Your task to perform on an android device: uninstall "Roku - Official Remote Control" Image 0: 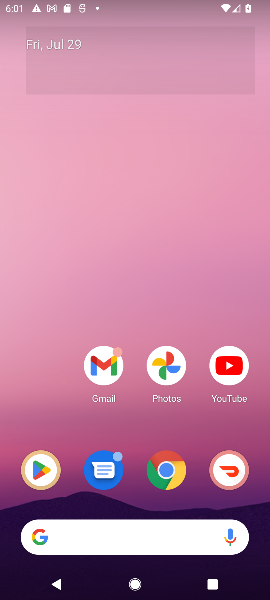
Step 0: drag from (189, 497) to (211, 112)
Your task to perform on an android device: uninstall "Roku - Official Remote Control" Image 1: 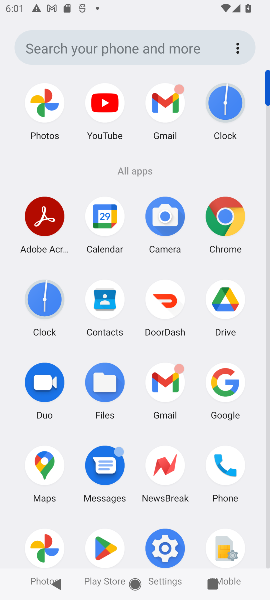
Step 1: click (101, 550)
Your task to perform on an android device: uninstall "Roku - Official Remote Control" Image 2: 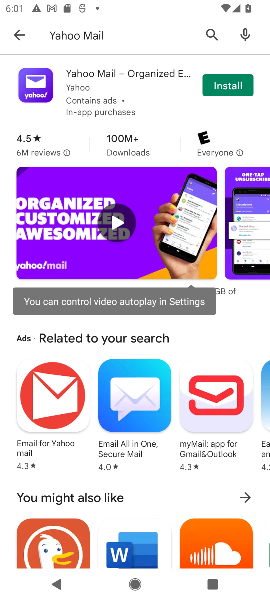
Step 2: click (175, 30)
Your task to perform on an android device: uninstall "Roku - Official Remote Control" Image 3: 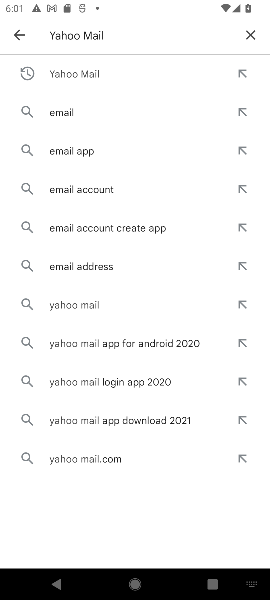
Step 3: click (257, 35)
Your task to perform on an android device: uninstall "Roku - Official Remote Control" Image 4: 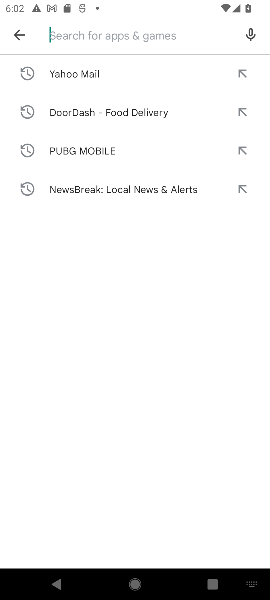
Step 4: type "Roku - Official Remote Cotrol"
Your task to perform on an android device: uninstall "Roku - Official Remote Control" Image 5: 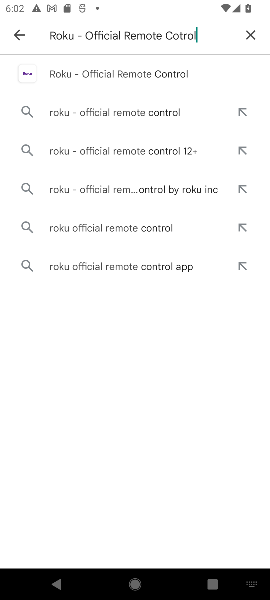
Step 5: click (75, 80)
Your task to perform on an android device: uninstall "Roku - Official Remote Control" Image 6: 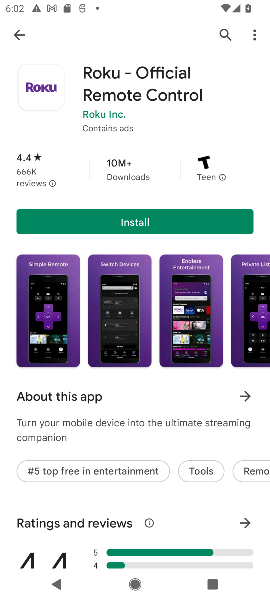
Step 6: task complete